Your task to perform on an android device: turn off javascript in the chrome app Image 0: 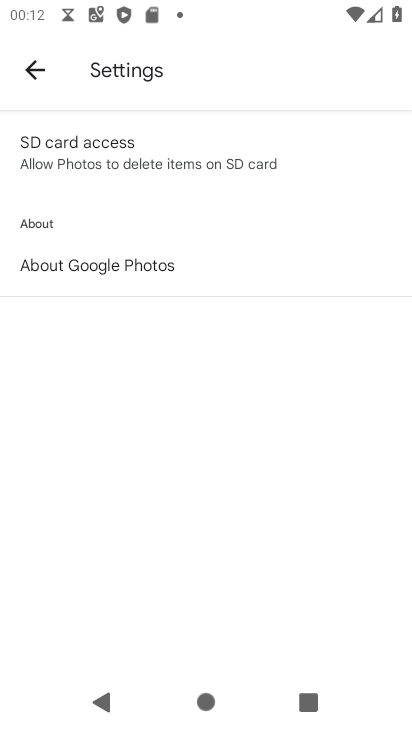
Step 0: press back button
Your task to perform on an android device: turn off javascript in the chrome app Image 1: 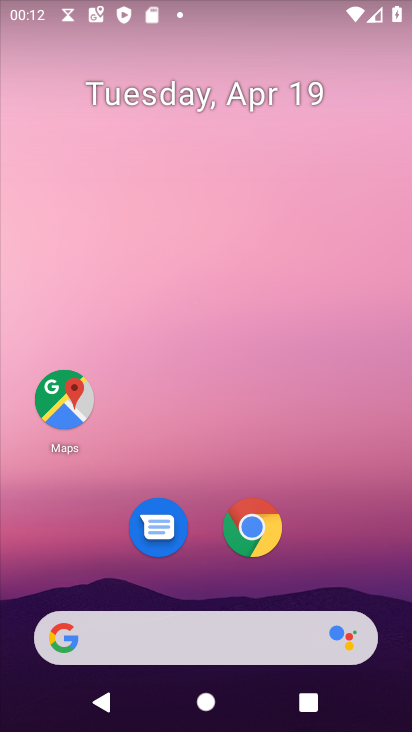
Step 1: click (255, 512)
Your task to perform on an android device: turn off javascript in the chrome app Image 2: 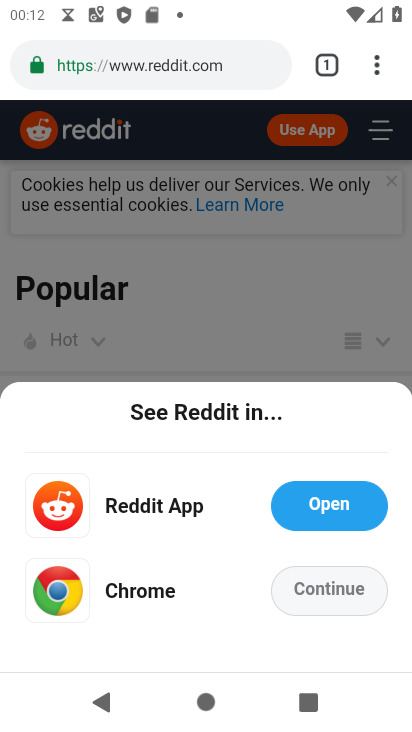
Step 2: click (369, 53)
Your task to perform on an android device: turn off javascript in the chrome app Image 3: 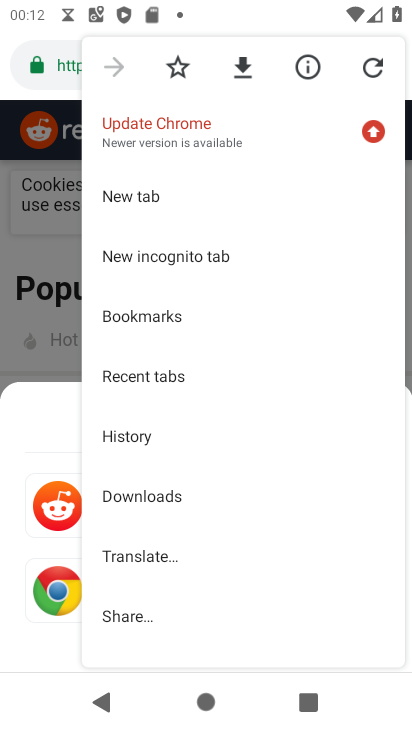
Step 3: drag from (204, 518) to (264, 260)
Your task to perform on an android device: turn off javascript in the chrome app Image 4: 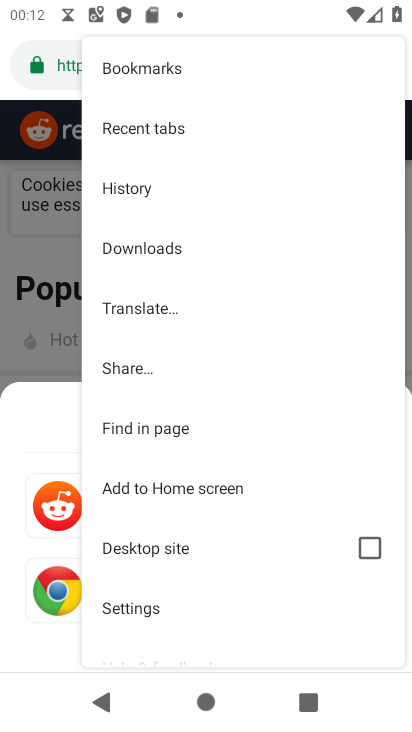
Step 4: click (210, 609)
Your task to perform on an android device: turn off javascript in the chrome app Image 5: 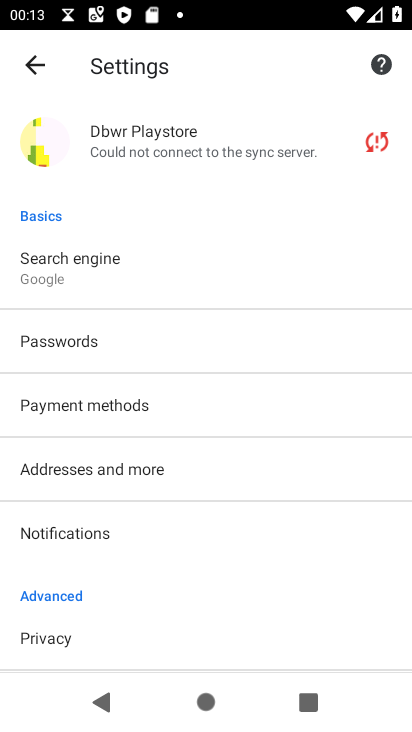
Step 5: drag from (219, 565) to (287, 251)
Your task to perform on an android device: turn off javascript in the chrome app Image 6: 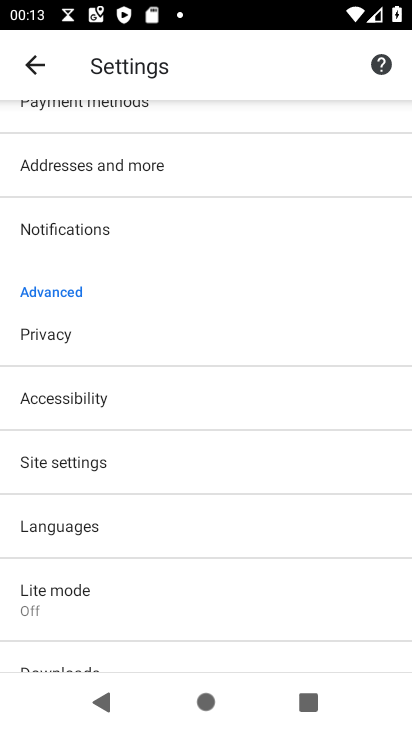
Step 6: drag from (211, 591) to (236, 352)
Your task to perform on an android device: turn off javascript in the chrome app Image 7: 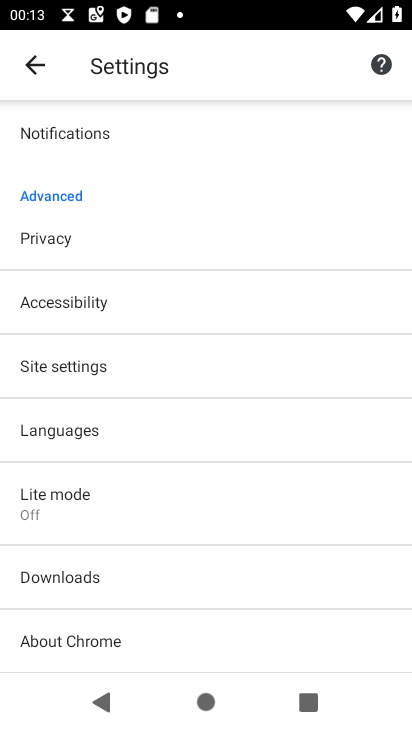
Step 7: click (140, 374)
Your task to perform on an android device: turn off javascript in the chrome app Image 8: 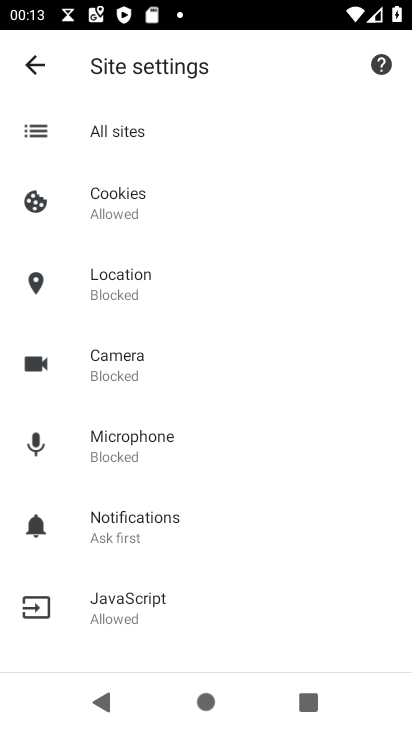
Step 8: click (232, 603)
Your task to perform on an android device: turn off javascript in the chrome app Image 9: 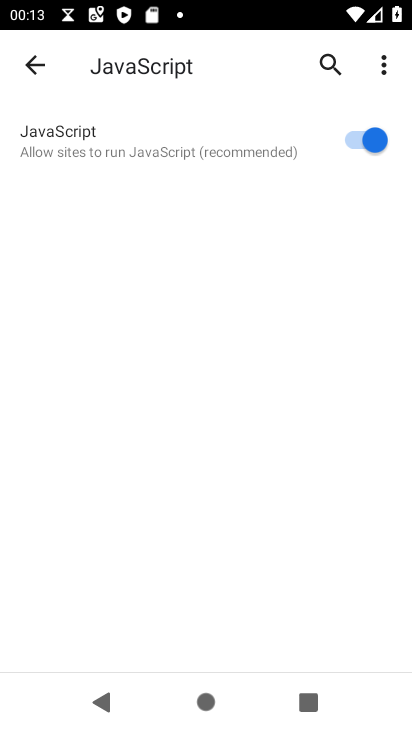
Step 9: click (338, 144)
Your task to perform on an android device: turn off javascript in the chrome app Image 10: 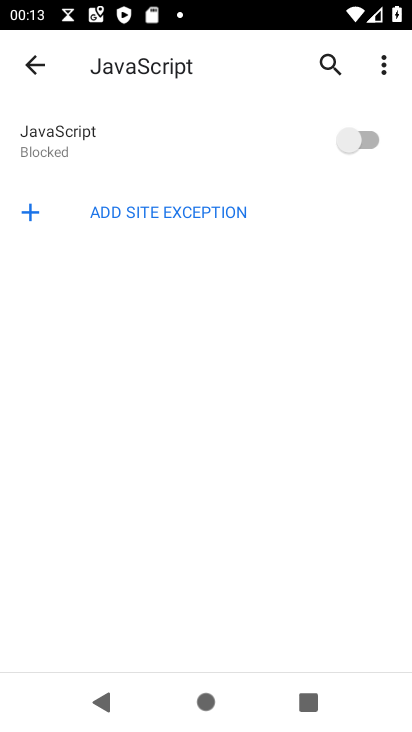
Step 10: task complete